Your task to perform on an android device: Open the map Image 0: 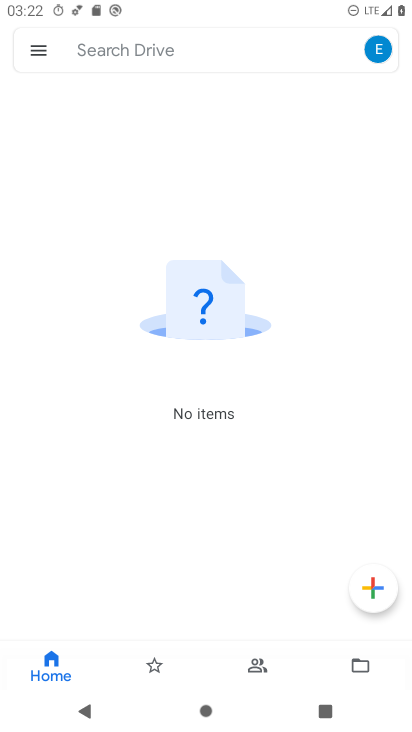
Step 0: press home button
Your task to perform on an android device: Open the map Image 1: 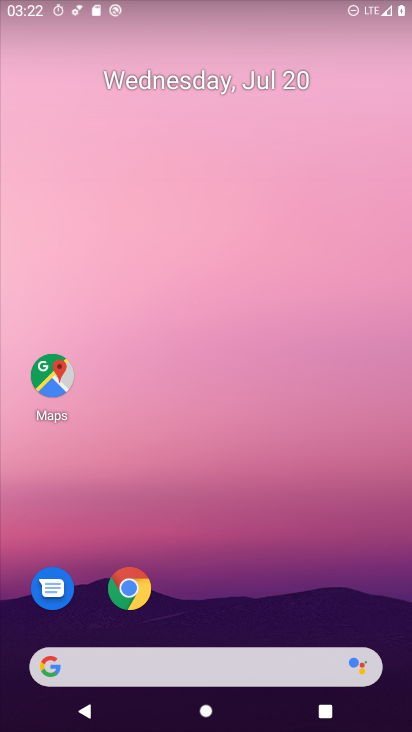
Step 1: drag from (191, 631) to (151, 150)
Your task to perform on an android device: Open the map Image 2: 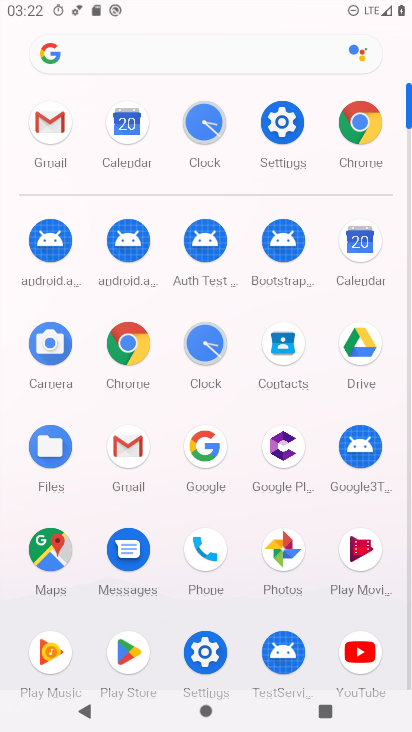
Step 2: click (58, 545)
Your task to perform on an android device: Open the map Image 3: 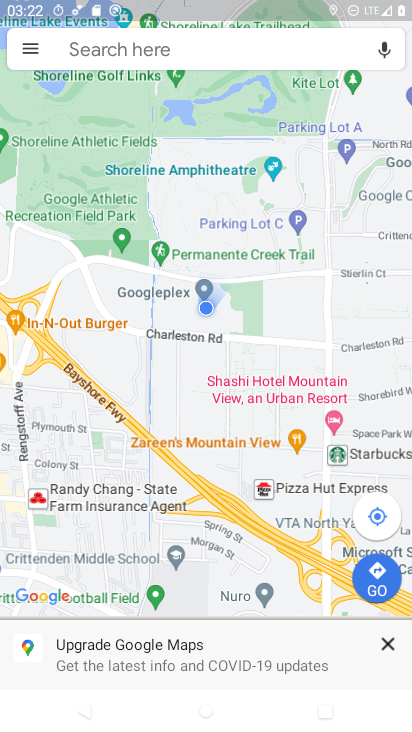
Step 3: task complete